Your task to perform on an android device: turn vacation reply on in the gmail app Image 0: 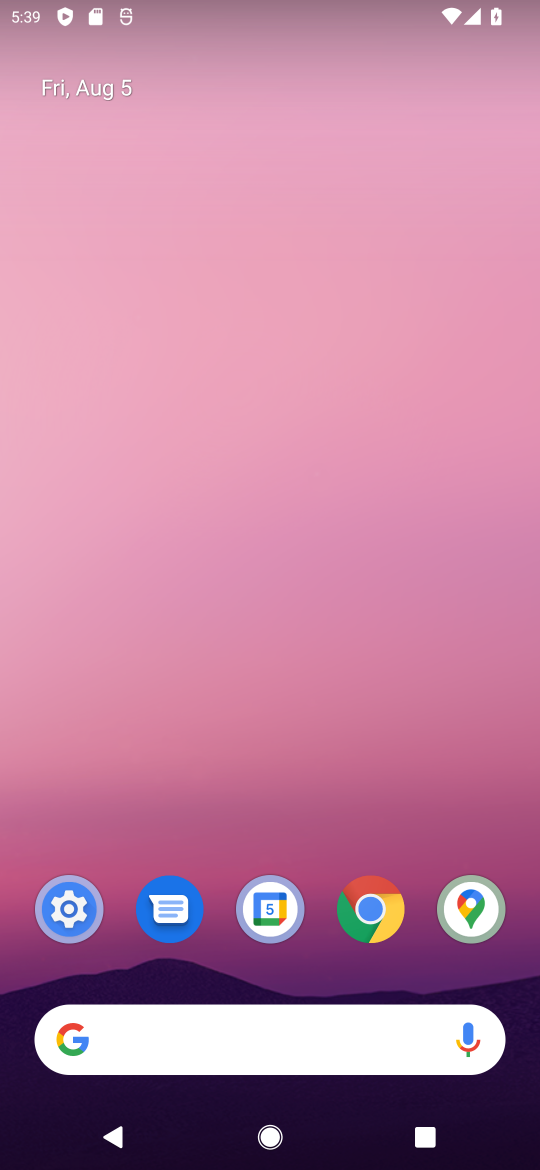
Step 0: press home button
Your task to perform on an android device: turn vacation reply on in the gmail app Image 1: 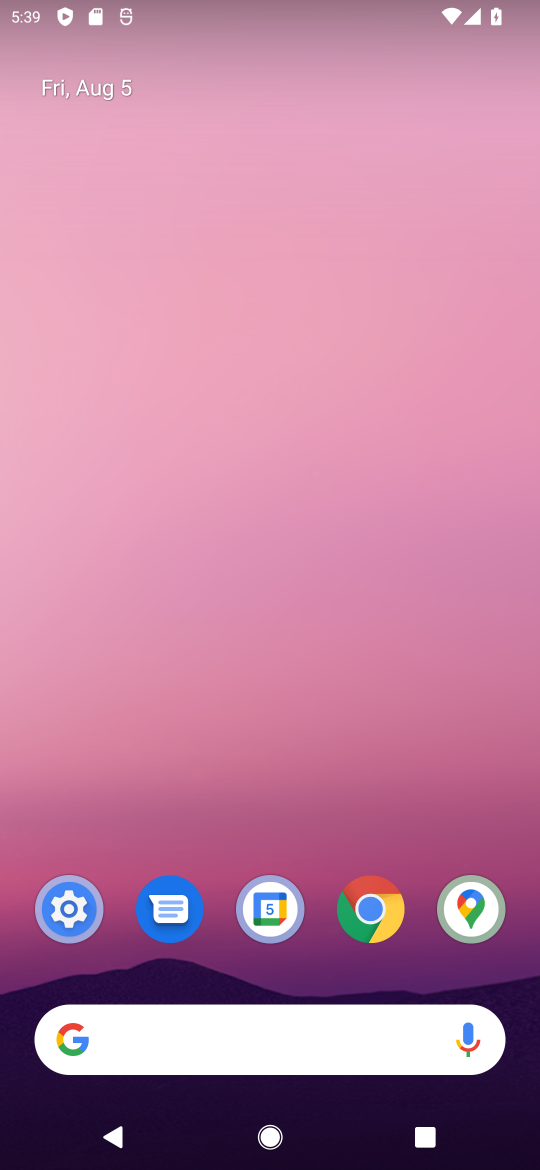
Step 1: drag from (253, 809) to (228, 120)
Your task to perform on an android device: turn vacation reply on in the gmail app Image 2: 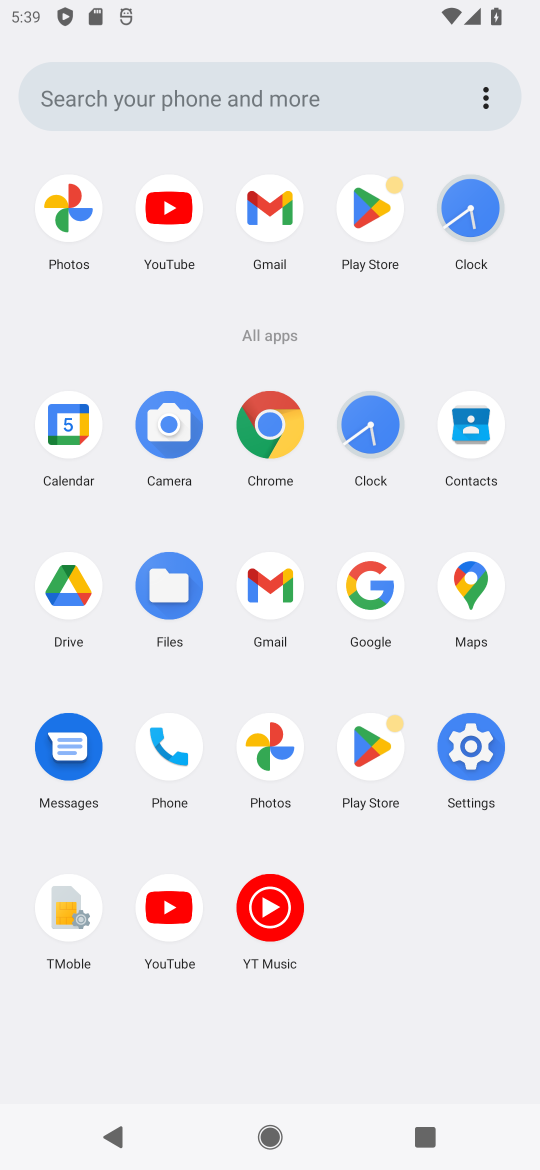
Step 2: click (285, 198)
Your task to perform on an android device: turn vacation reply on in the gmail app Image 3: 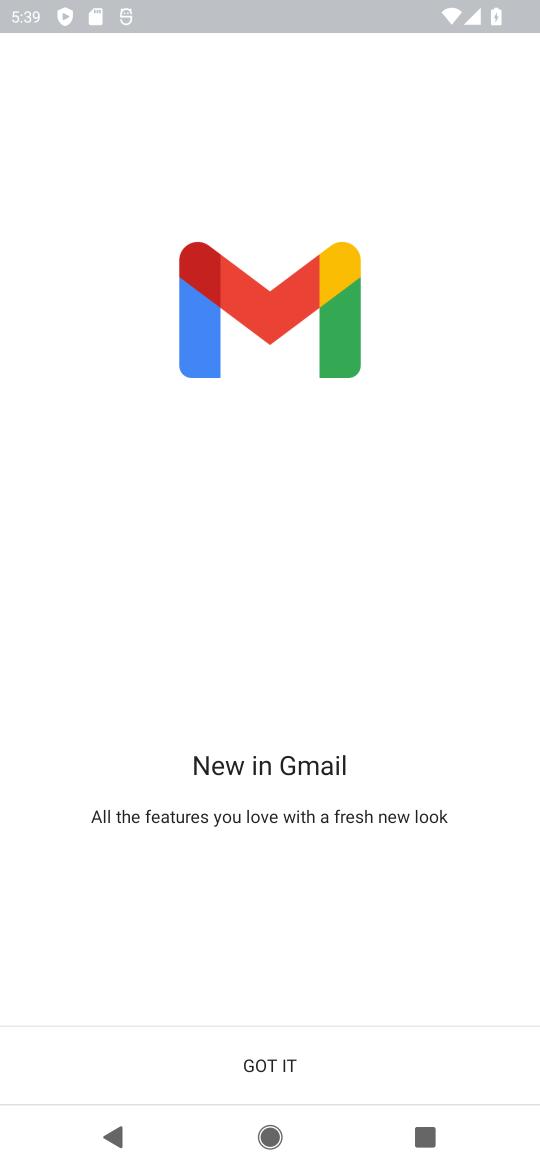
Step 3: click (268, 1064)
Your task to perform on an android device: turn vacation reply on in the gmail app Image 4: 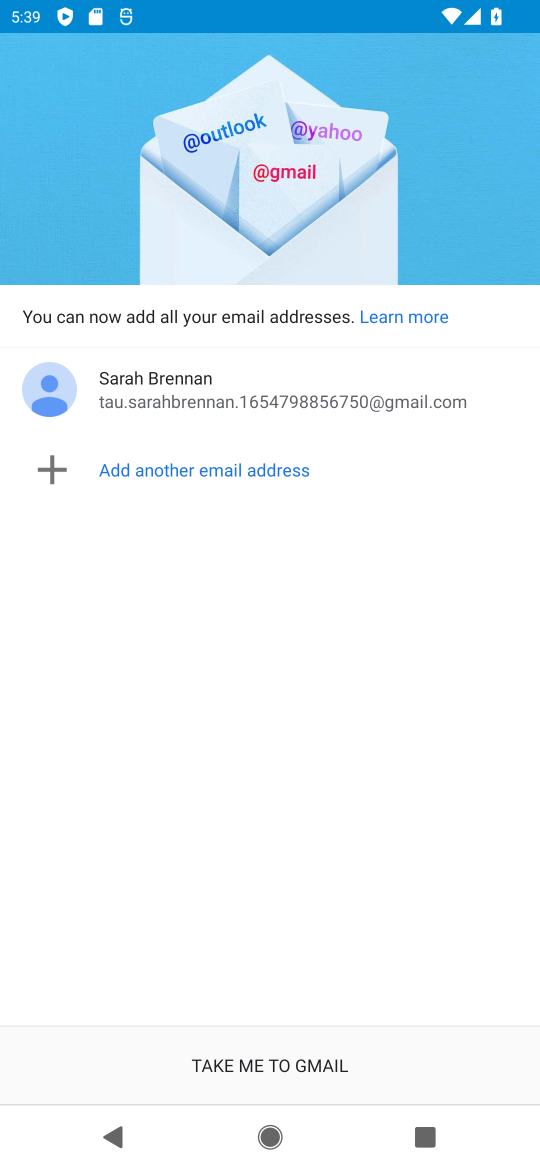
Step 4: click (254, 1050)
Your task to perform on an android device: turn vacation reply on in the gmail app Image 5: 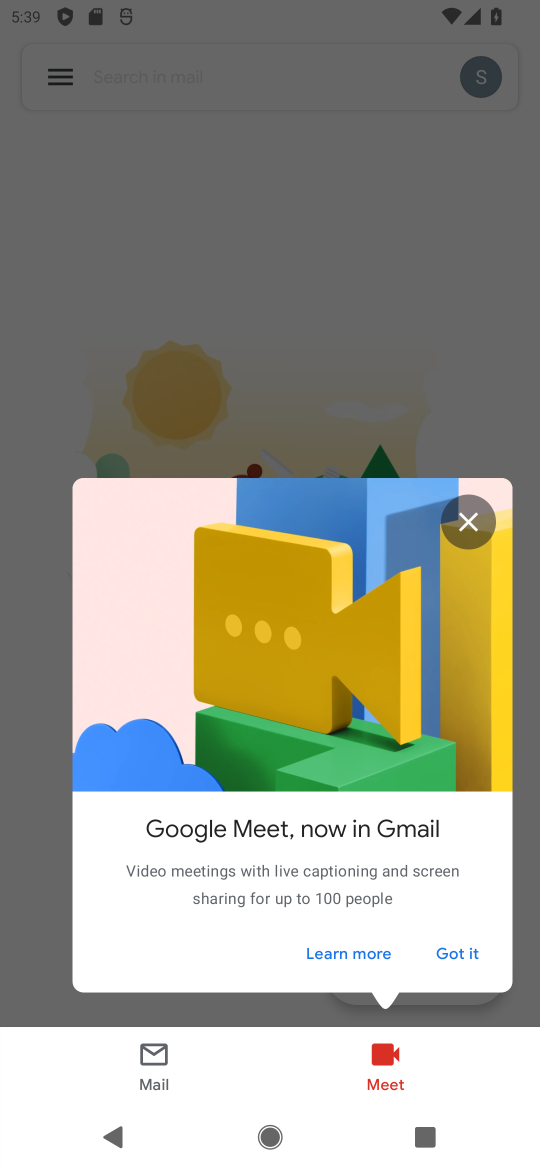
Step 5: click (453, 953)
Your task to perform on an android device: turn vacation reply on in the gmail app Image 6: 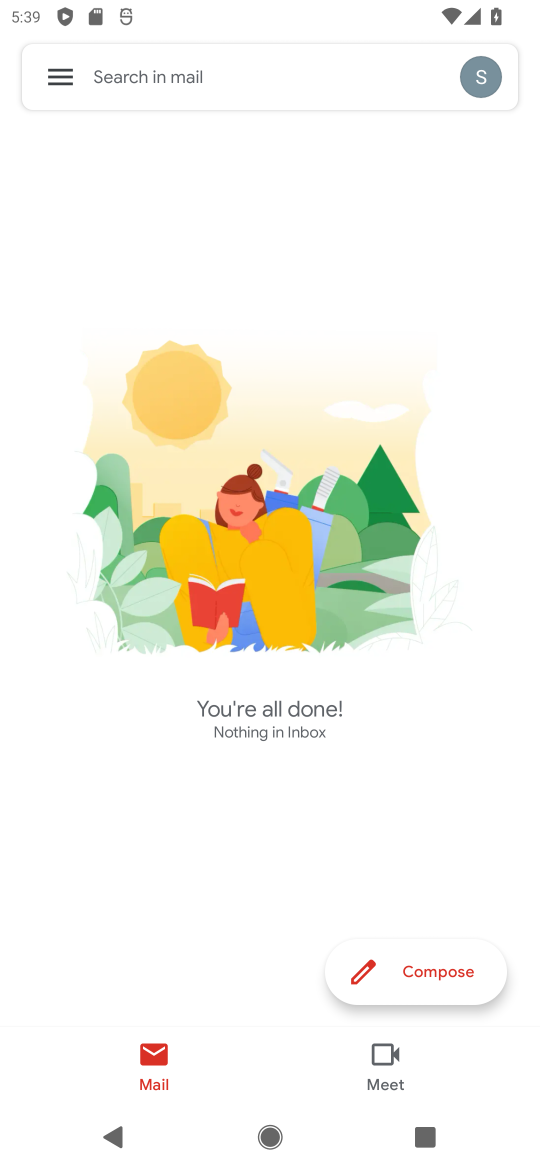
Step 6: click (58, 71)
Your task to perform on an android device: turn vacation reply on in the gmail app Image 7: 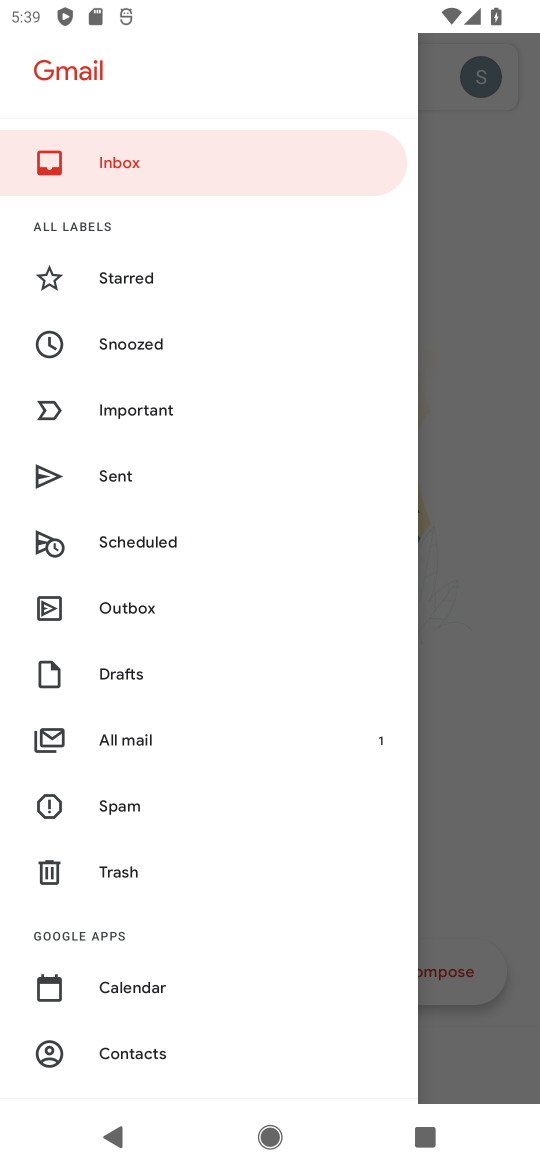
Step 7: drag from (176, 948) to (178, 554)
Your task to perform on an android device: turn vacation reply on in the gmail app Image 8: 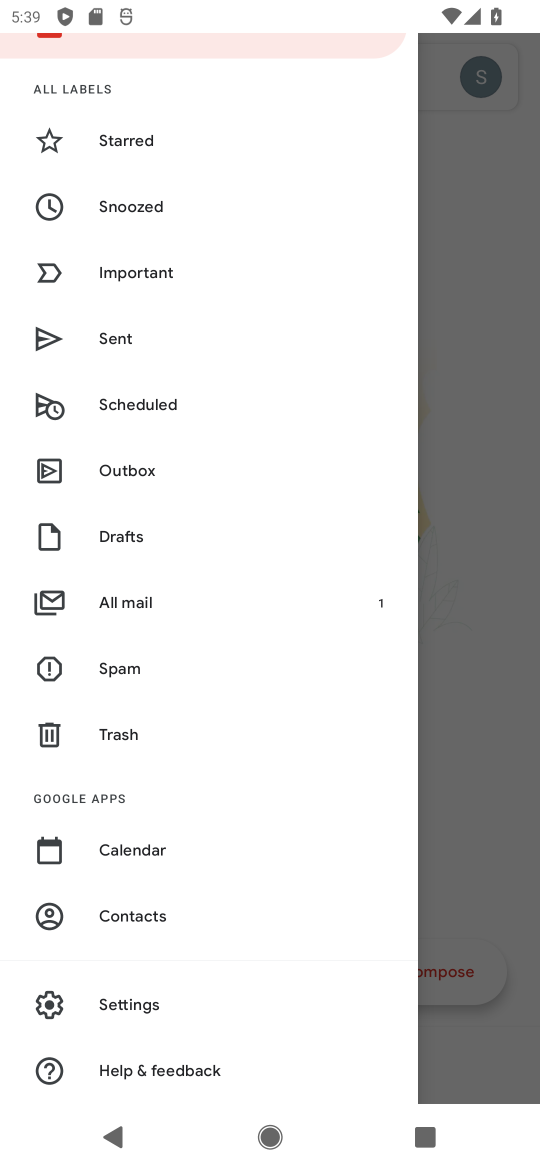
Step 8: click (167, 1004)
Your task to perform on an android device: turn vacation reply on in the gmail app Image 9: 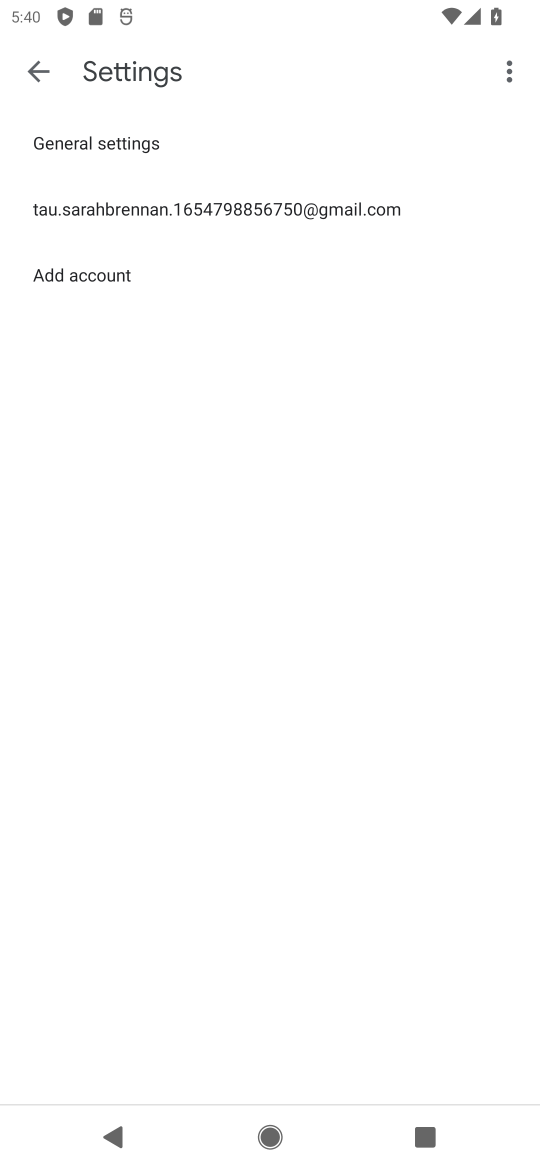
Step 9: click (98, 208)
Your task to perform on an android device: turn vacation reply on in the gmail app Image 10: 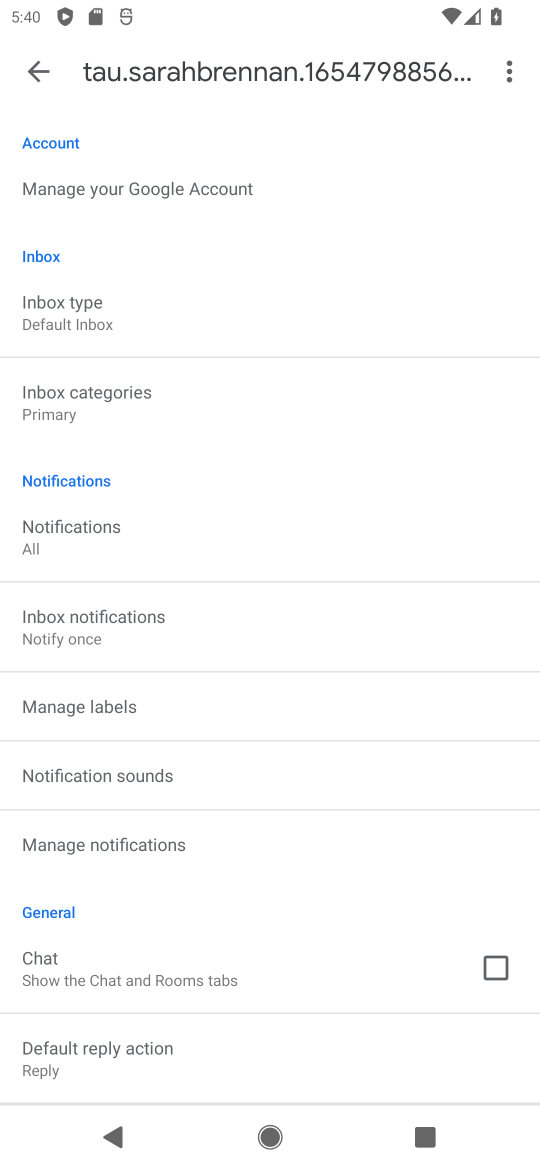
Step 10: drag from (168, 917) to (257, 274)
Your task to perform on an android device: turn vacation reply on in the gmail app Image 11: 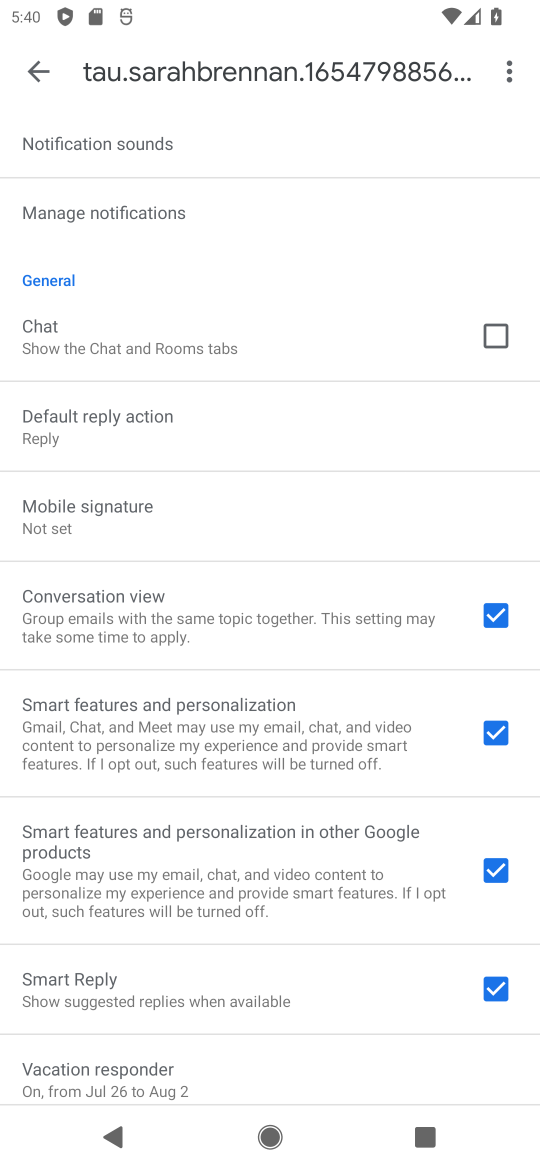
Step 11: click (120, 1073)
Your task to perform on an android device: turn vacation reply on in the gmail app Image 12: 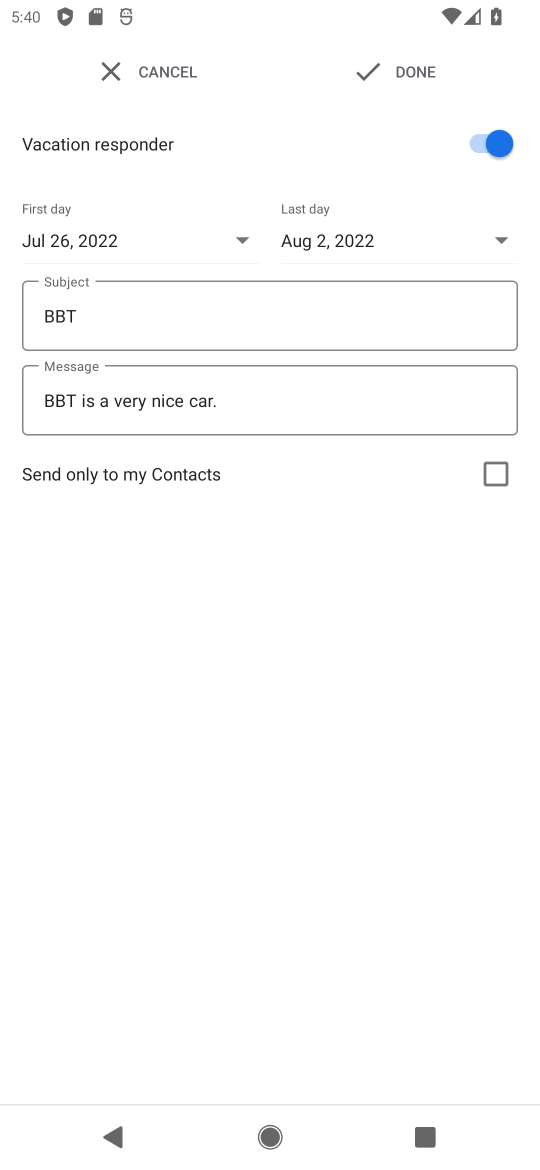
Step 12: task complete